Your task to perform on an android device: refresh tabs in the chrome app Image 0: 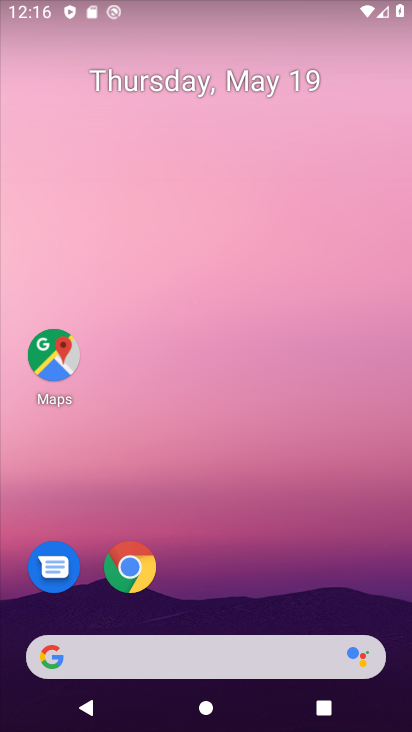
Step 0: click (135, 570)
Your task to perform on an android device: refresh tabs in the chrome app Image 1: 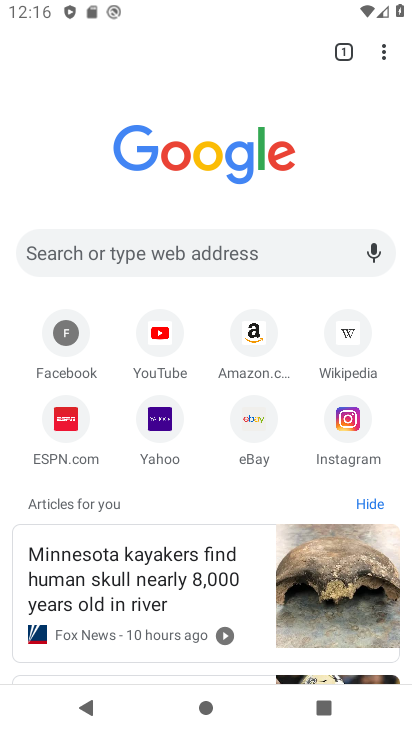
Step 1: click (383, 50)
Your task to perform on an android device: refresh tabs in the chrome app Image 2: 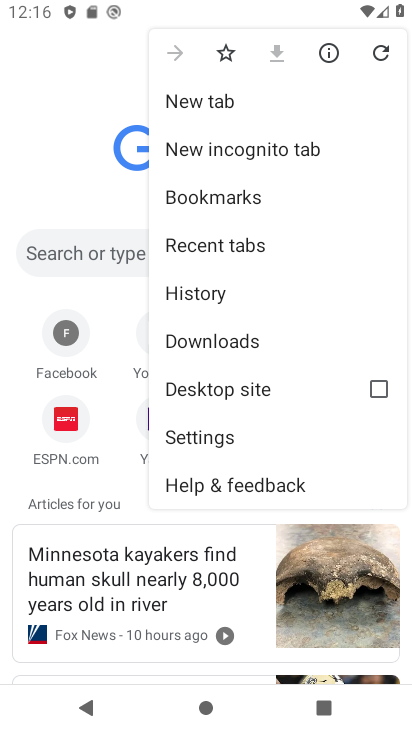
Step 2: click (378, 45)
Your task to perform on an android device: refresh tabs in the chrome app Image 3: 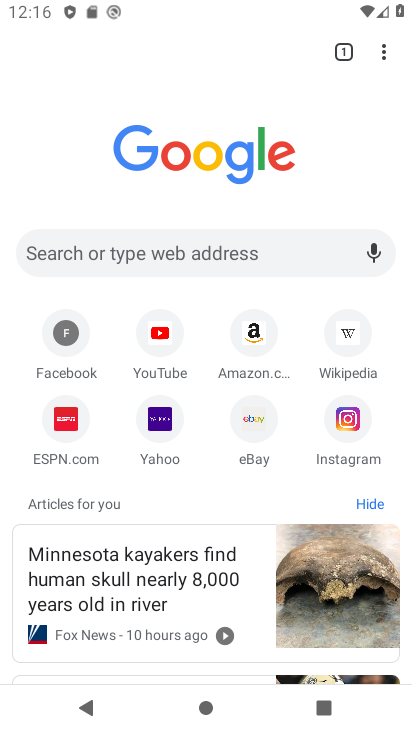
Step 3: task complete